Your task to perform on an android device: turn on wifi Image 0: 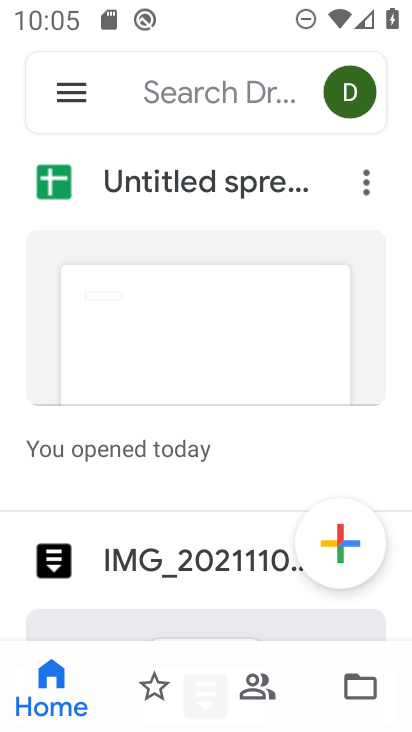
Step 0: press home button
Your task to perform on an android device: turn on wifi Image 1: 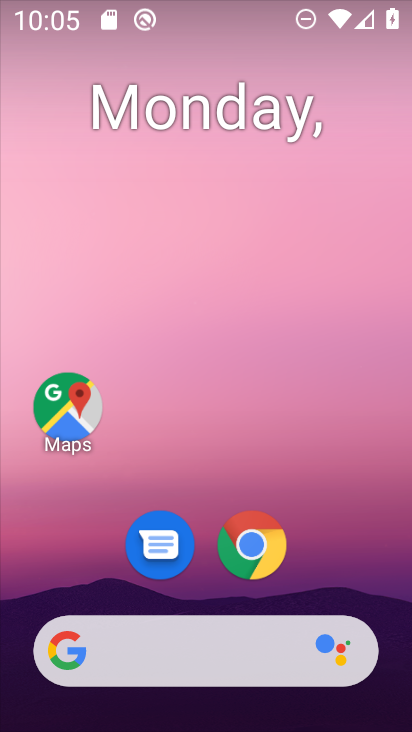
Step 1: task complete